Your task to perform on an android device: Go to Android settings Image 0: 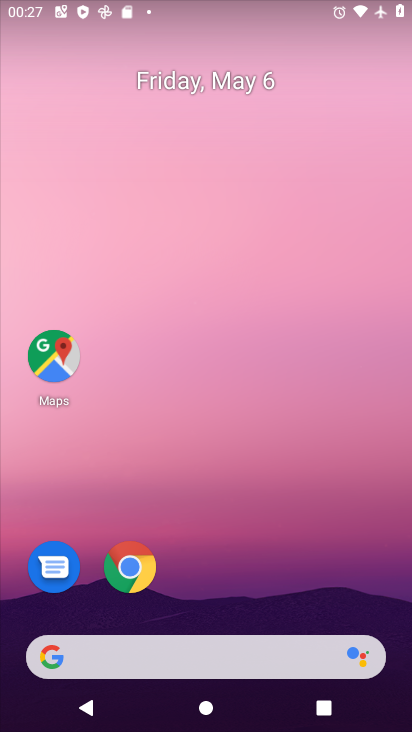
Step 0: drag from (214, 592) to (178, 77)
Your task to perform on an android device: Go to Android settings Image 1: 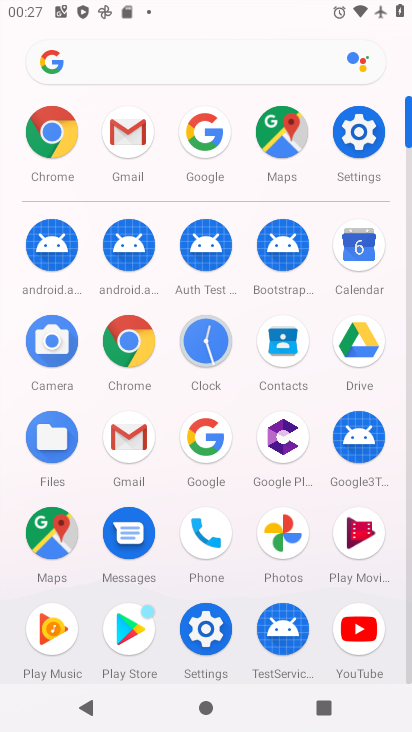
Step 1: click (363, 130)
Your task to perform on an android device: Go to Android settings Image 2: 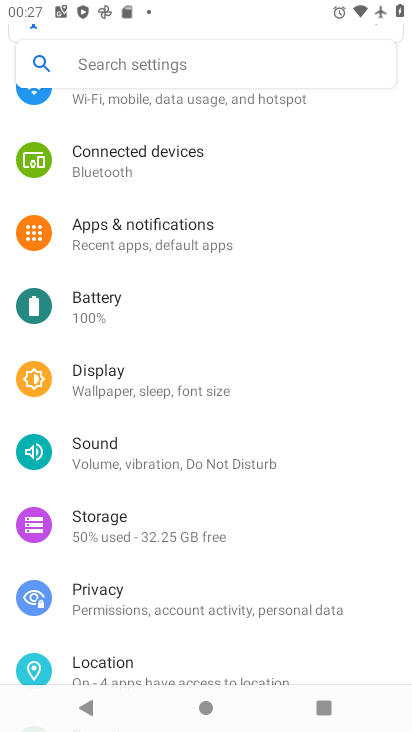
Step 2: task complete